Your task to perform on an android device: check out phone information Image 0: 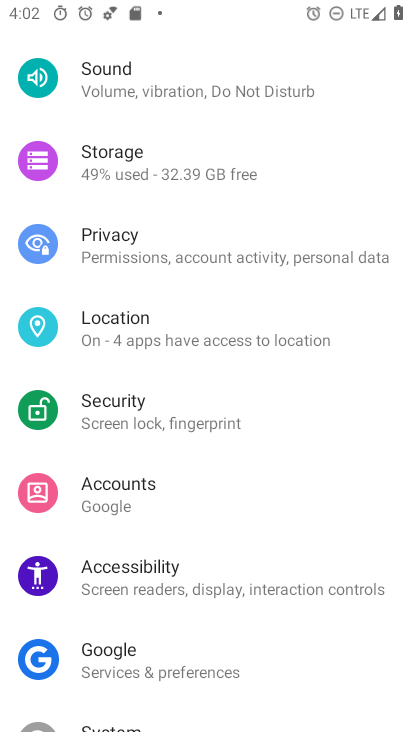
Step 0: drag from (177, 706) to (182, 210)
Your task to perform on an android device: check out phone information Image 1: 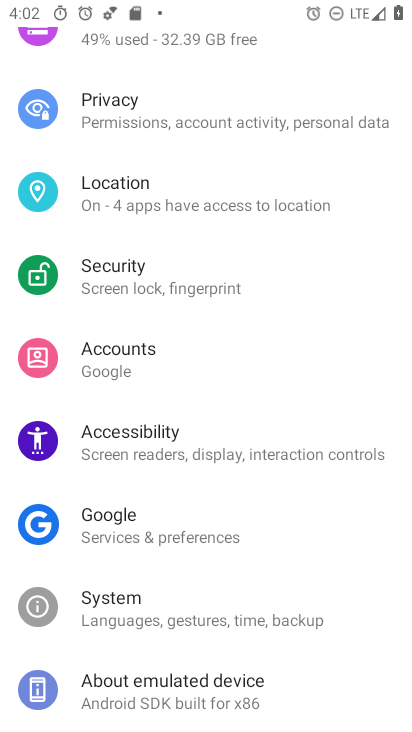
Step 1: click (172, 688)
Your task to perform on an android device: check out phone information Image 2: 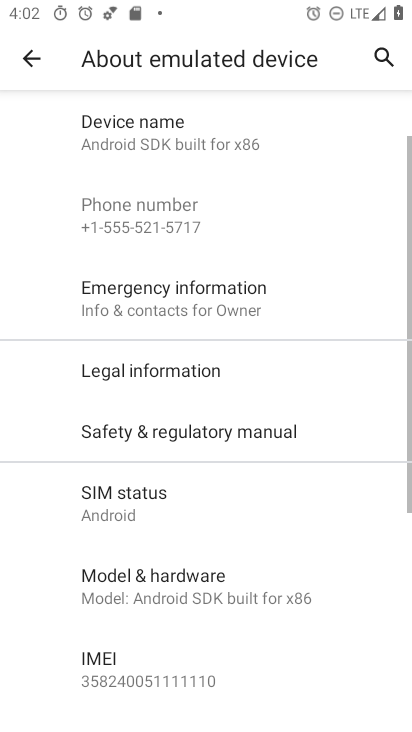
Step 2: click (191, 303)
Your task to perform on an android device: check out phone information Image 3: 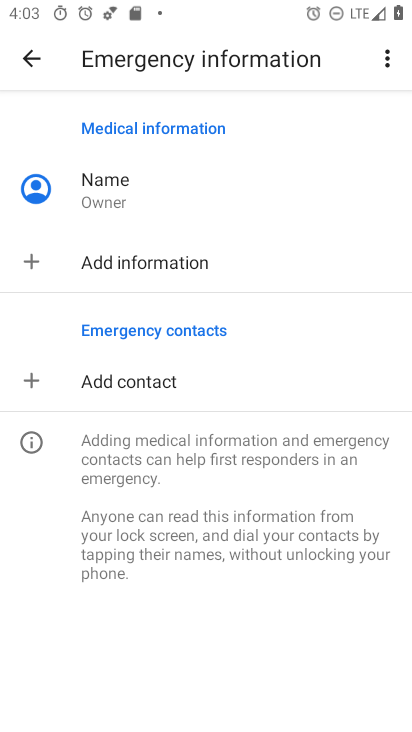
Step 3: task complete